Your task to perform on an android device: turn off sleep mode Image 0: 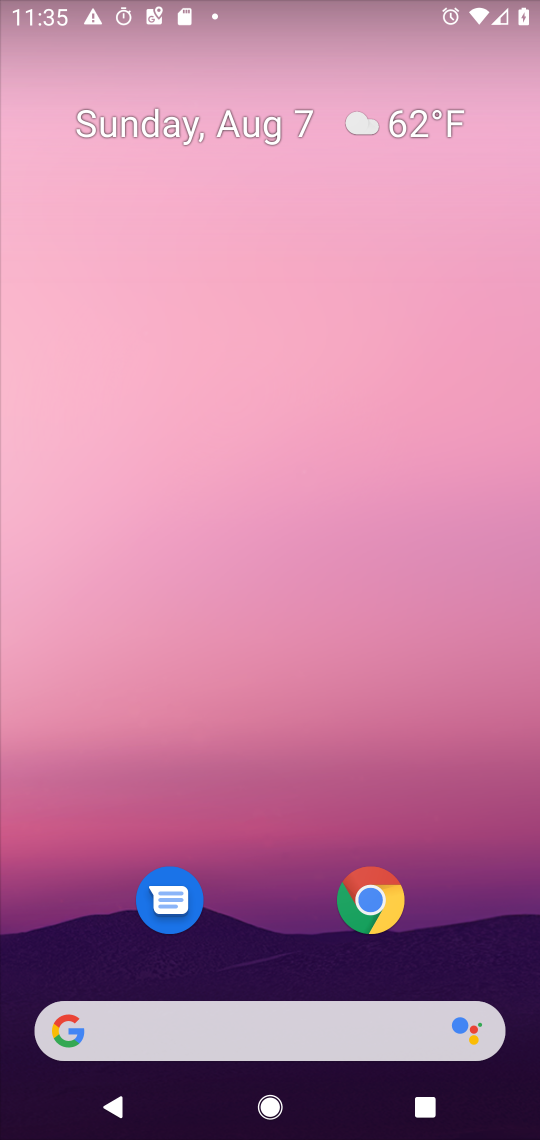
Step 0: press home button
Your task to perform on an android device: turn off sleep mode Image 1: 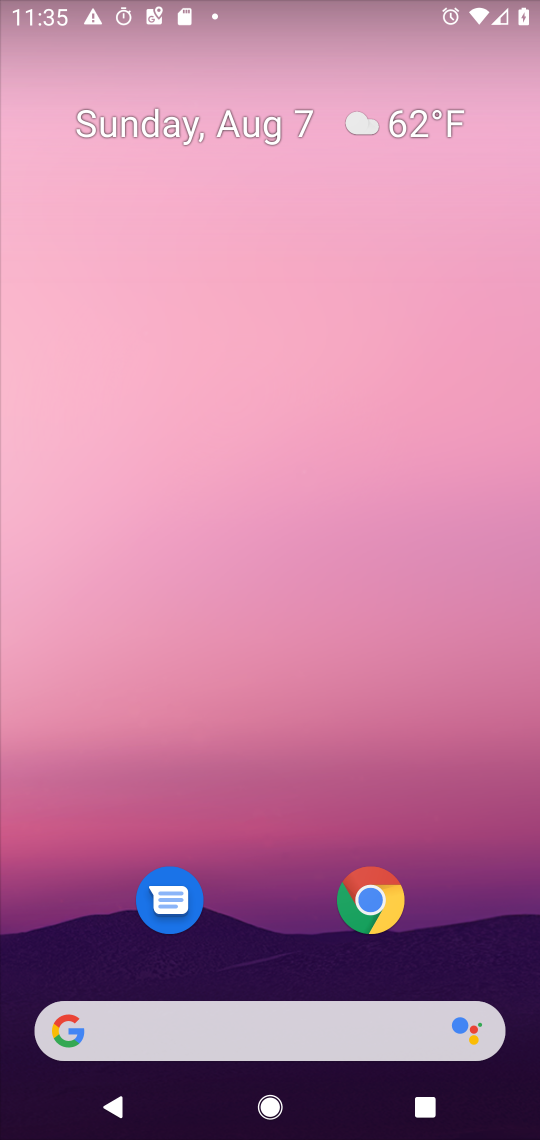
Step 1: drag from (291, 961) to (275, 181)
Your task to perform on an android device: turn off sleep mode Image 2: 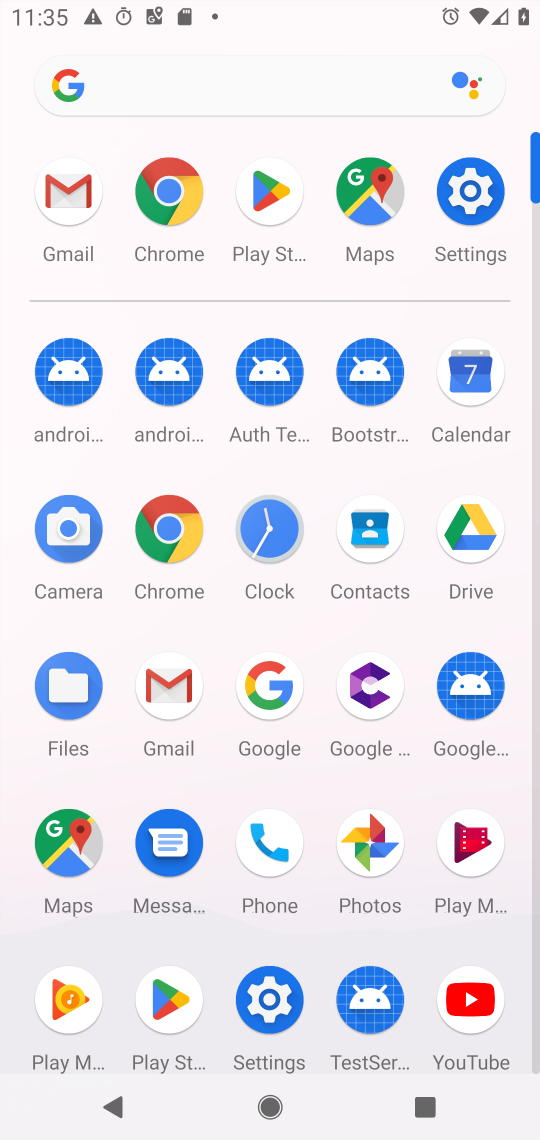
Step 2: click (469, 199)
Your task to perform on an android device: turn off sleep mode Image 3: 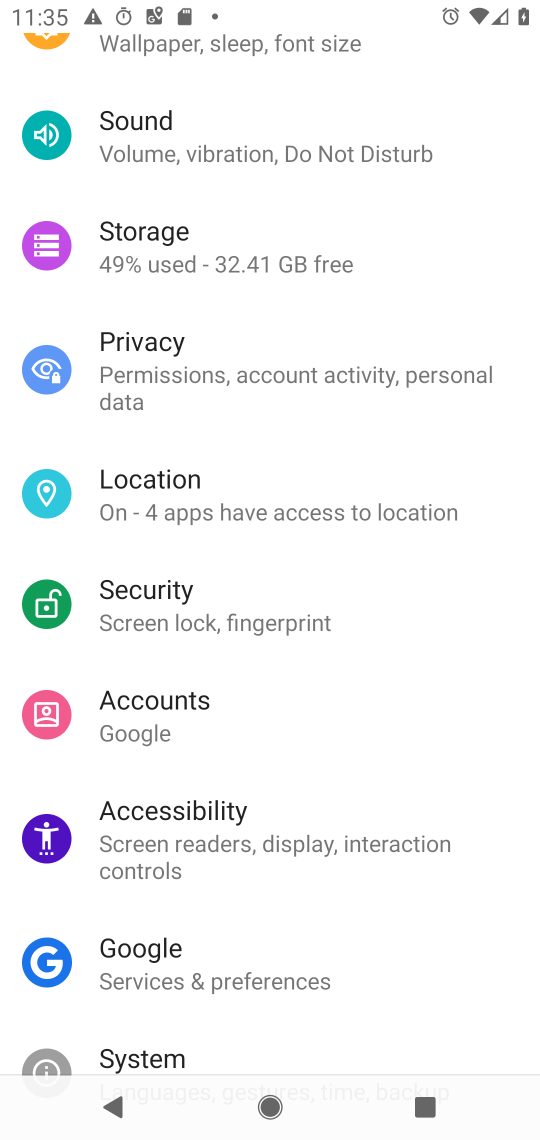
Step 3: drag from (227, 224) to (284, 1134)
Your task to perform on an android device: turn off sleep mode Image 4: 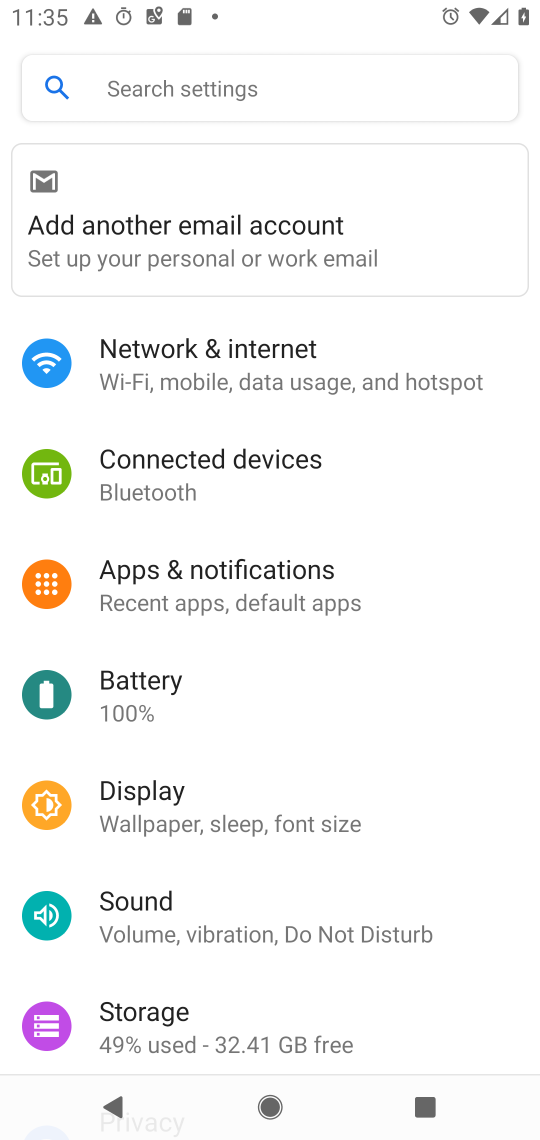
Step 4: click (216, 788)
Your task to perform on an android device: turn off sleep mode Image 5: 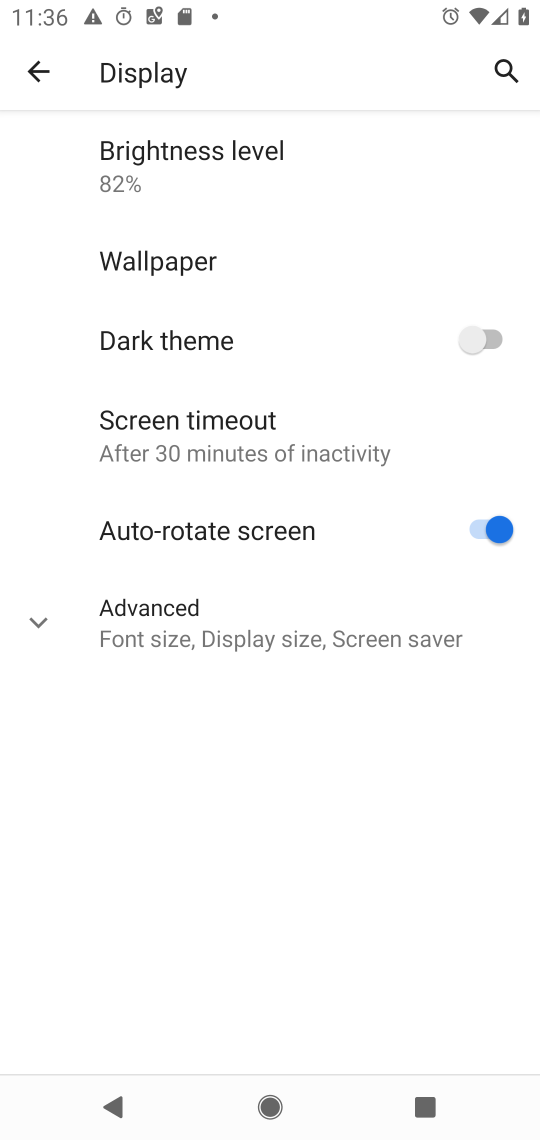
Step 5: click (65, 616)
Your task to perform on an android device: turn off sleep mode Image 6: 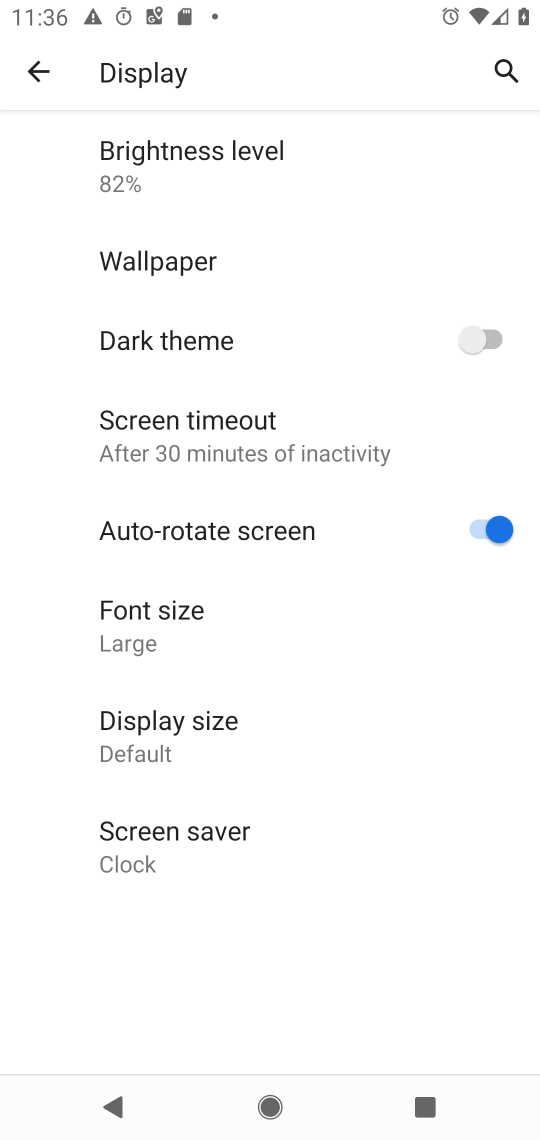
Step 6: task complete